Your task to perform on an android device: Go to Reddit.com Image 0: 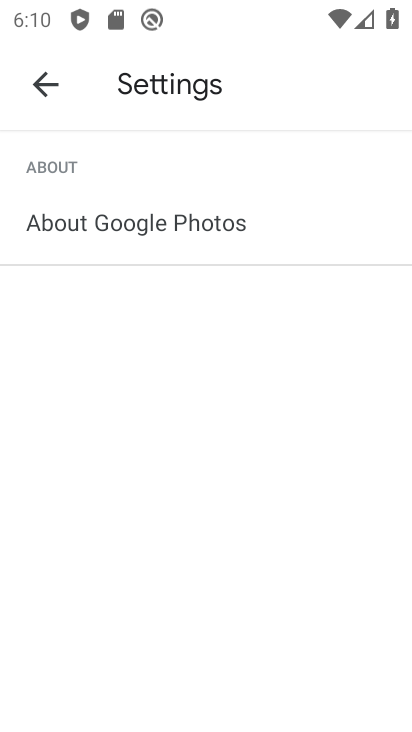
Step 0: press home button
Your task to perform on an android device: Go to Reddit.com Image 1: 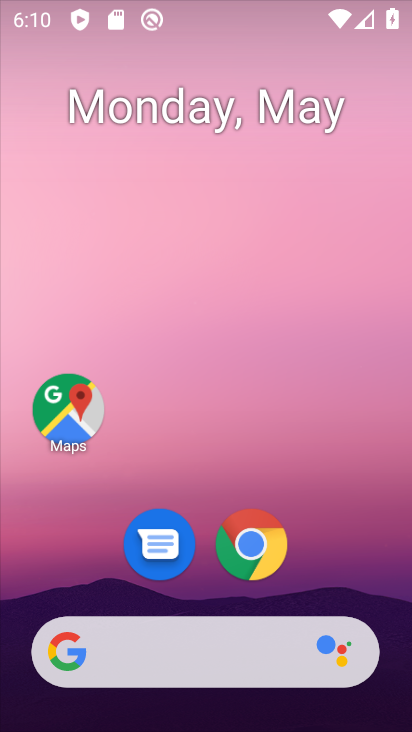
Step 1: click (255, 554)
Your task to perform on an android device: Go to Reddit.com Image 2: 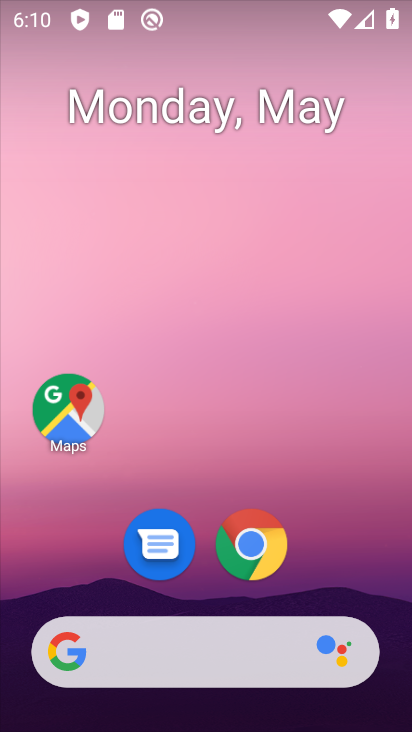
Step 2: click (268, 550)
Your task to perform on an android device: Go to Reddit.com Image 3: 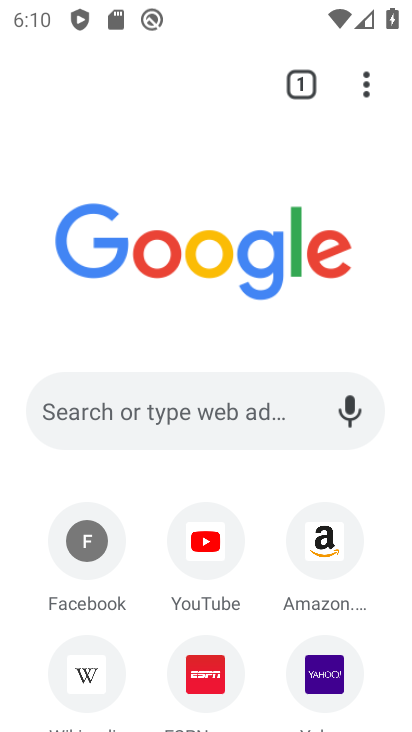
Step 3: click (288, 79)
Your task to perform on an android device: Go to Reddit.com Image 4: 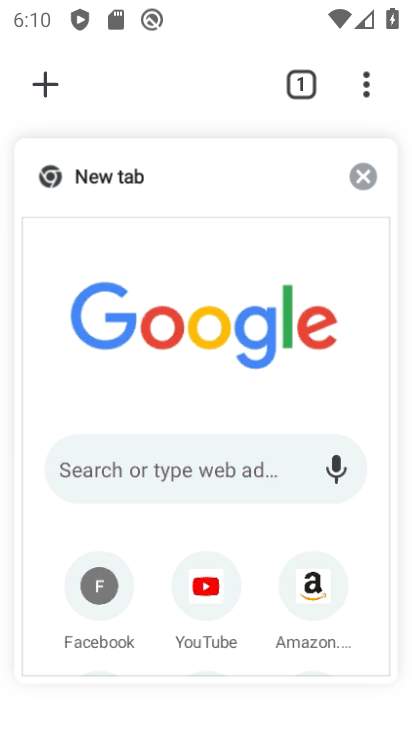
Step 4: click (191, 192)
Your task to perform on an android device: Go to Reddit.com Image 5: 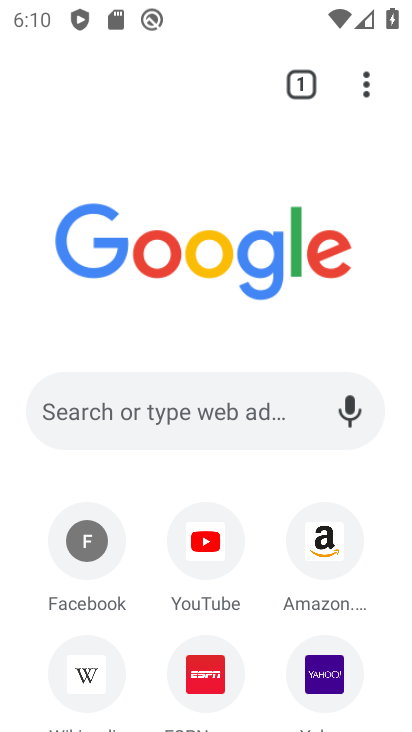
Step 5: click (173, 386)
Your task to perform on an android device: Go to Reddit.com Image 6: 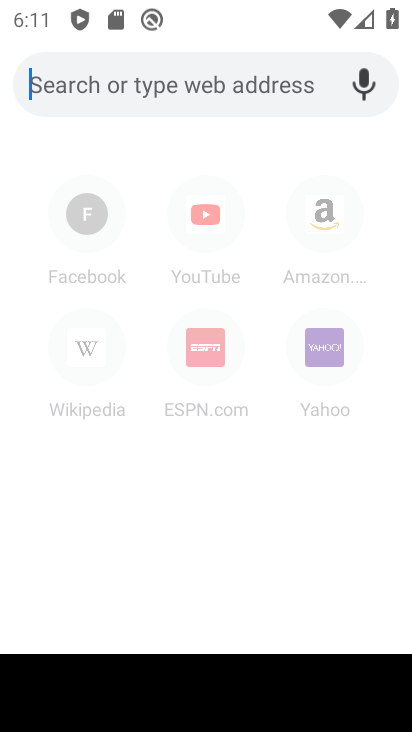
Step 6: type "Reddit.com"
Your task to perform on an android device: Go to Reddit.com Image 7: 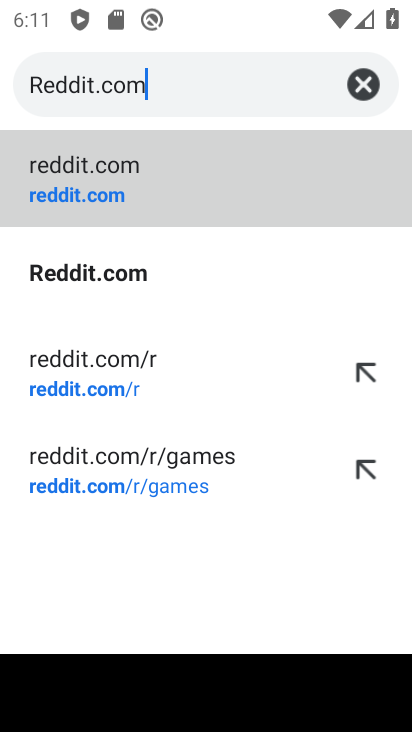
Step 7: click (136, 218)
Your task to perform on an android device: Go to Reddit.com Image 8: 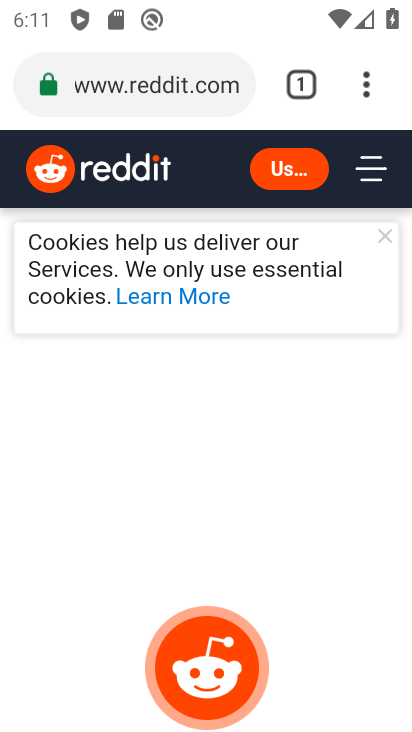
Step 8: task complete